Your task to perform on an android device: turn off sleep mode Image 0: 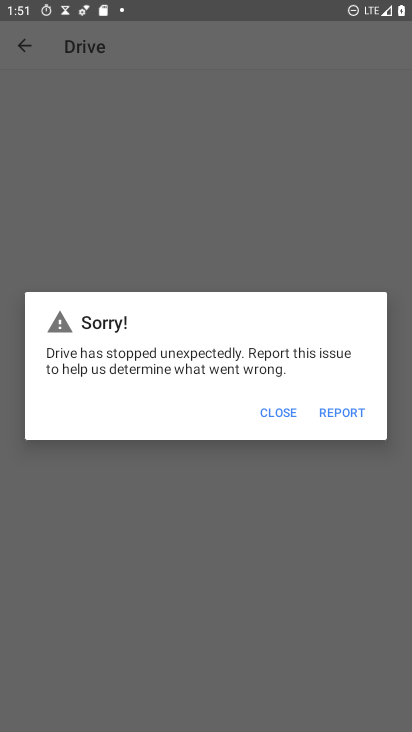
Step 0: press home button
Your task to perform on an android device: turn off sleep mode Image 1: 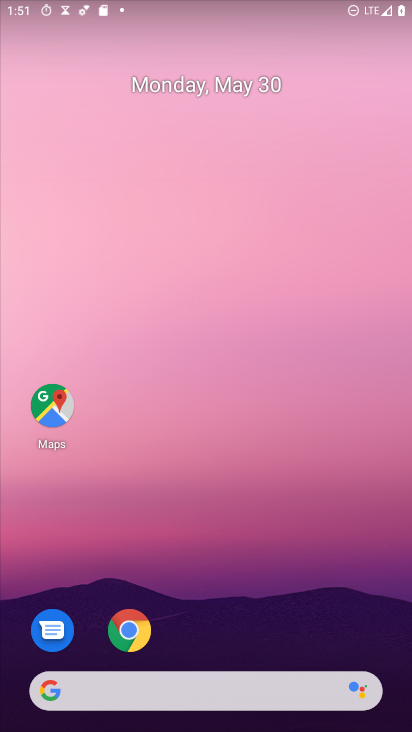
Step 1: drag from (324, 706) to (278, 241)
Your task to perform on an android device: turn off sleep mode Image 2: 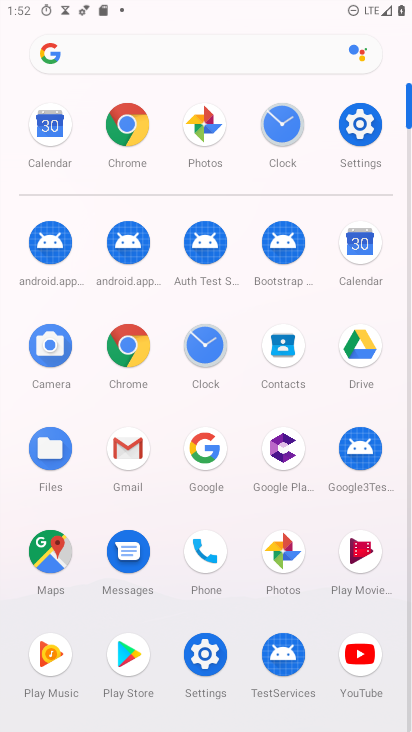
Step 2: click (371, 116)
Your task to perform on an android device: turn off sleep mode Image 3: 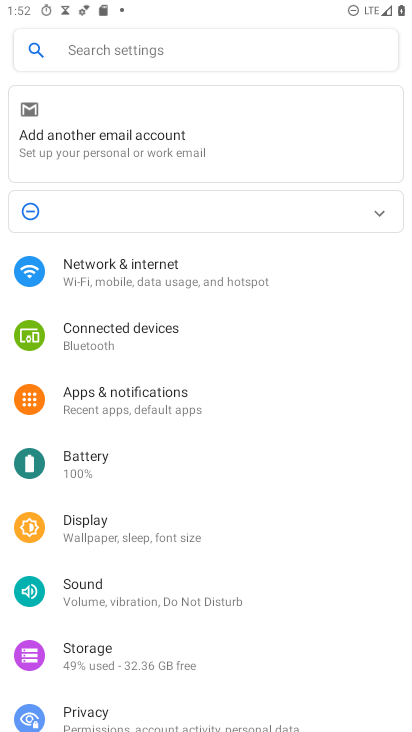
Step 3: click (165, 54)
Your task to perform on an android device: turn off sleep mode Image 4: 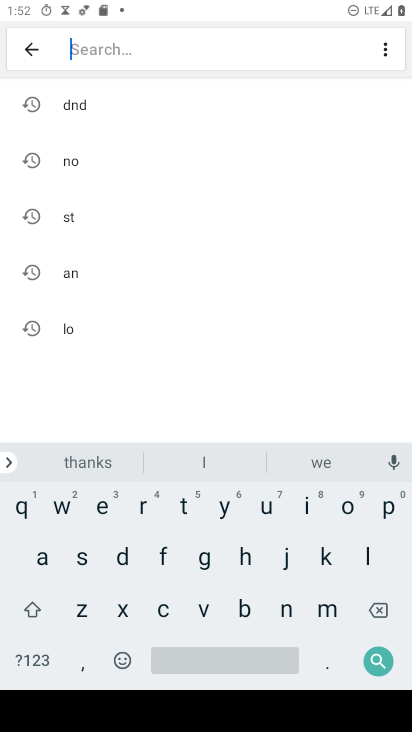
Step 4: click (75, 560)
Your task to perform on an android device: turn off sleep mode Image 5: 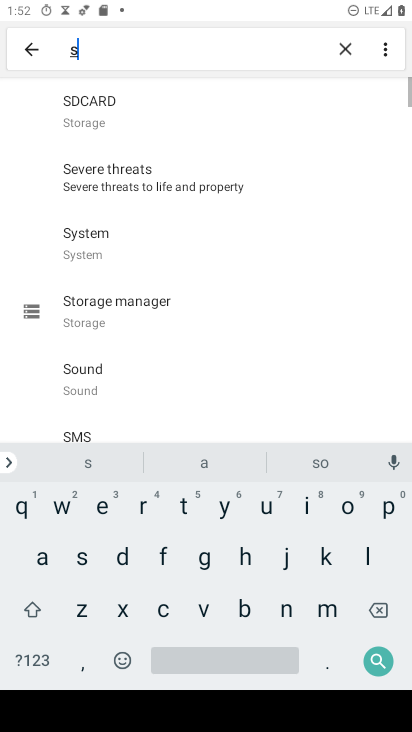
Step 5: click (371, 557)
Your task to perform on an android device: turn off sleep mode Image 6: 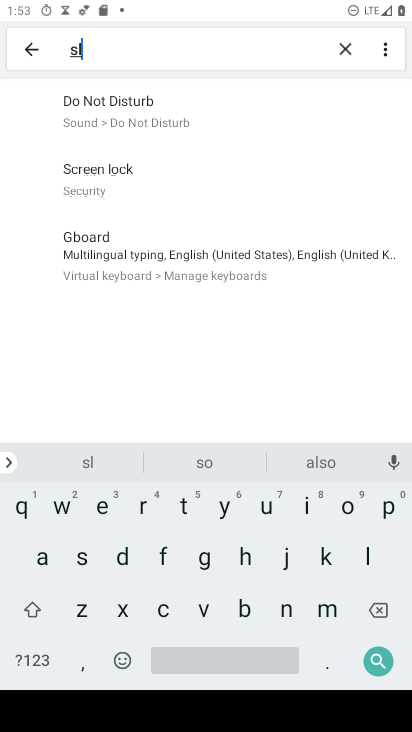
Step 6: click (105, 125)
Your task to perform on an android device: turn off sleep mode Image 7: 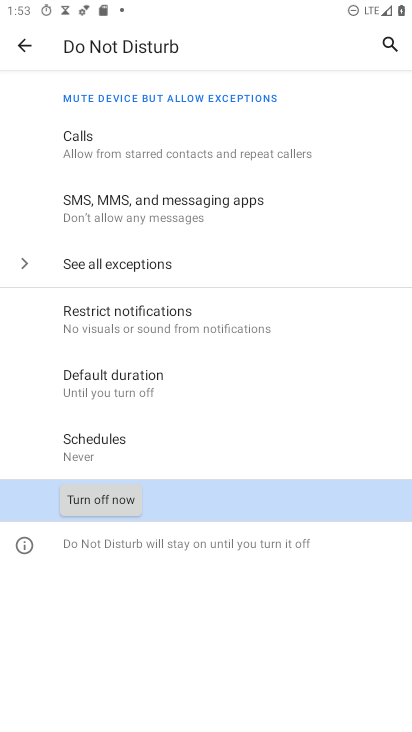
Step 7: click (93, 496)
Your task to perform on an android device: turn off sleep mode Image 8: 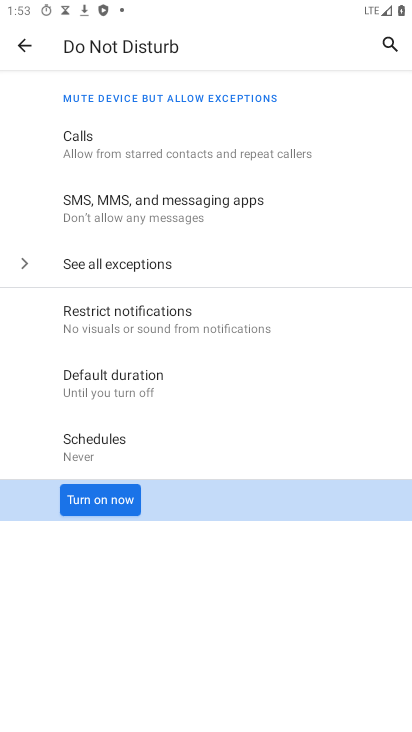
Step 8: click (93, 497)
Your task to perform on an android device: turn off sleep mode Image 9: 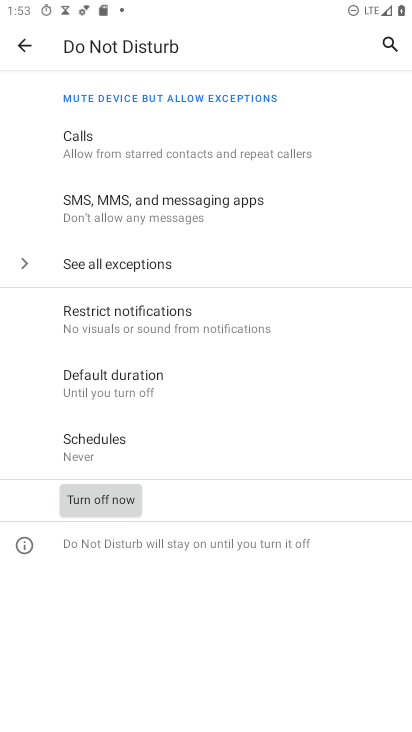
Step 9: task complete